Your task to perform on an android device: Toggle the flashlight Image 0: 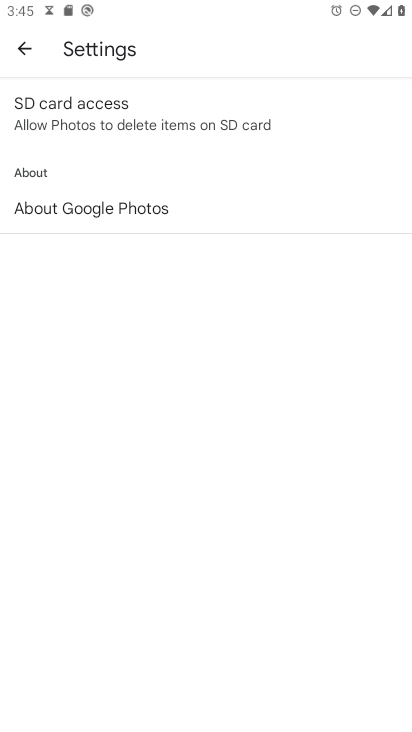
Step 0: drag from (274, 0) to (356, 577)
Your task to perform on an android device: Toggle the flashlight Image 1: 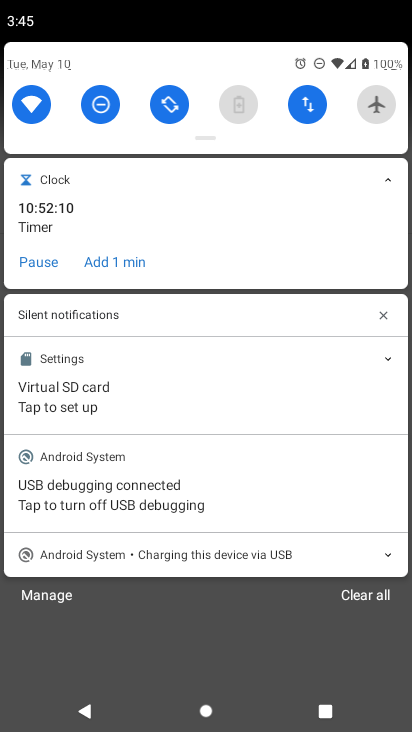
Step 1: task complete